Your task to perform on an android device: Open Chrome and go to settings Image 0: 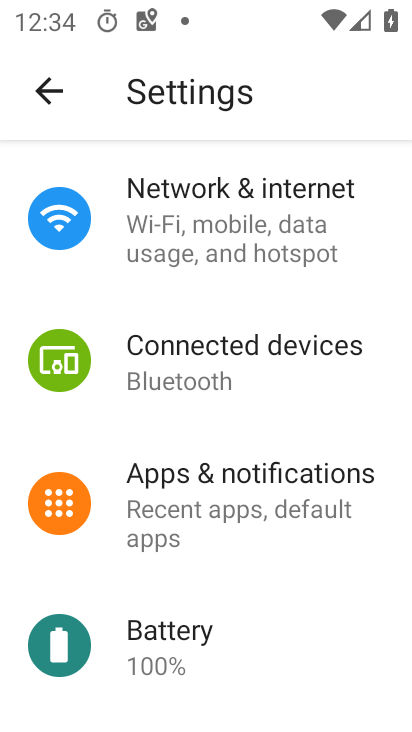
Step 0: press home button
Your task to perform on an android device: Open Chrome and go to settings Image 1: 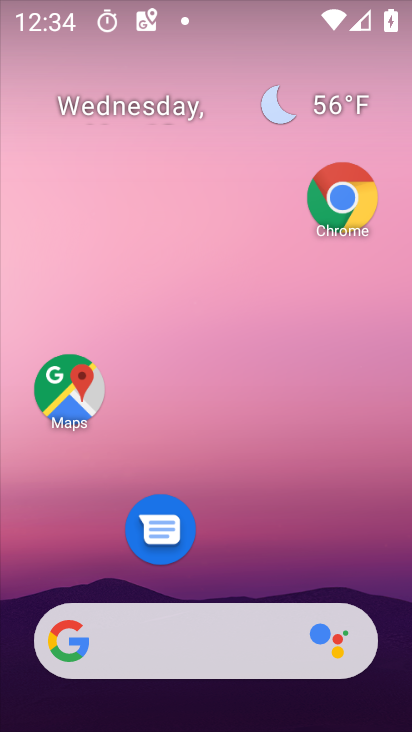
Step 1: click (342, 198)
Your task to perform on an android device: Open Chrome and go to settings Image 2: 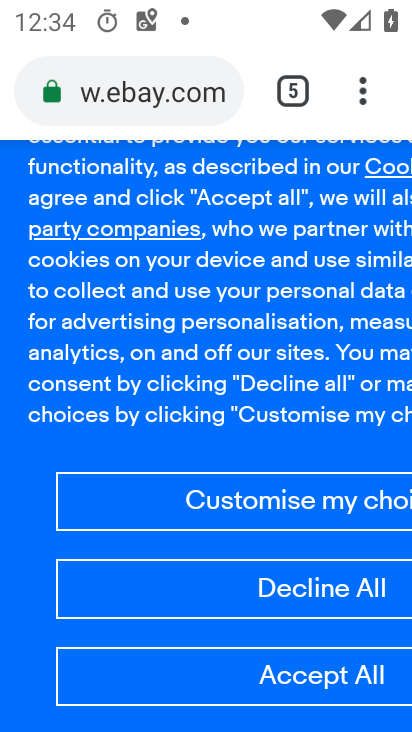
Step 2: click (378, 97)
Your task to perform on an android device: Open Chrome and go to settings Image 3: 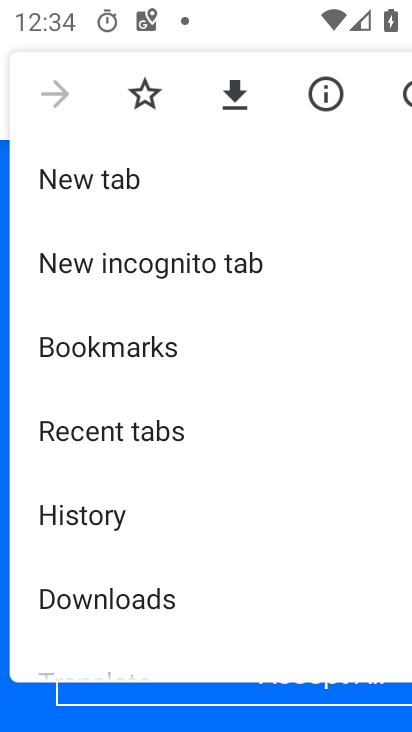
Step 3: drag from (74, 628) to (95, 134)
Your task to perform on an android device: Open Chrome and go to settings Image 4: 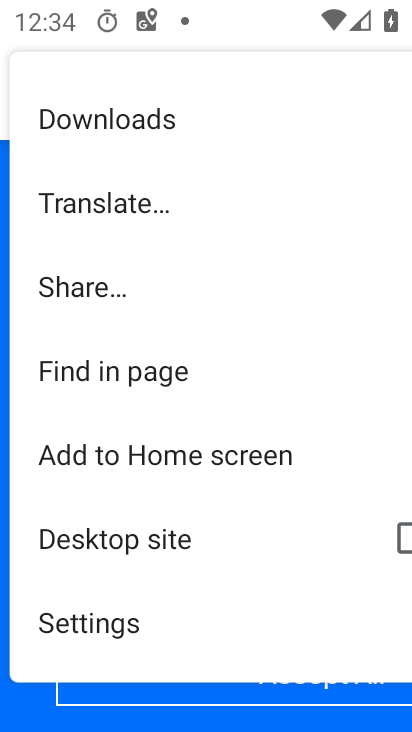
Step 4: click (93, 604)
Your task to perform on an android device: Open Chrome and go to settings Image 5: 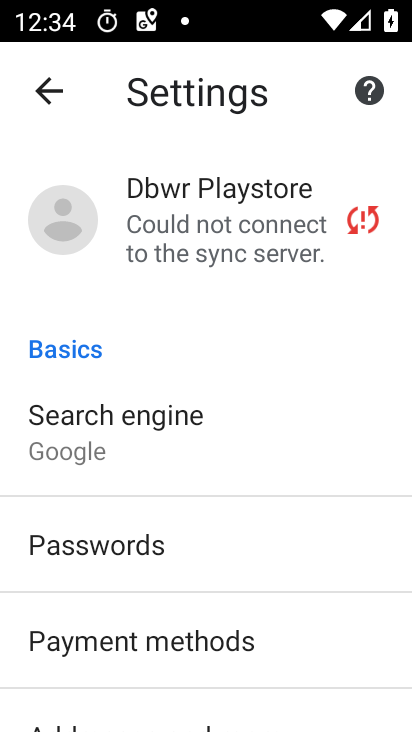
Step 5: task complete